Your task to perform on an android device: toggle wifi Image 0: 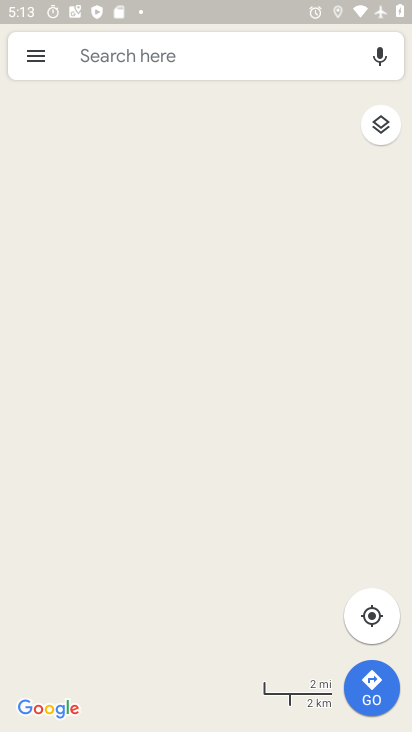
Step 0: press back button
Your task to perform on an android device: toggle wifi Image 1: 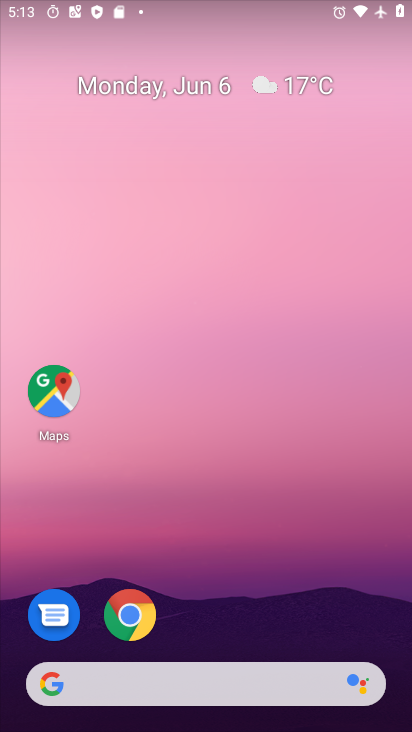
Step 1: drag from (232, 595) to (207, 1)
Your task to perform on an android device: toggle wifi Image 2: 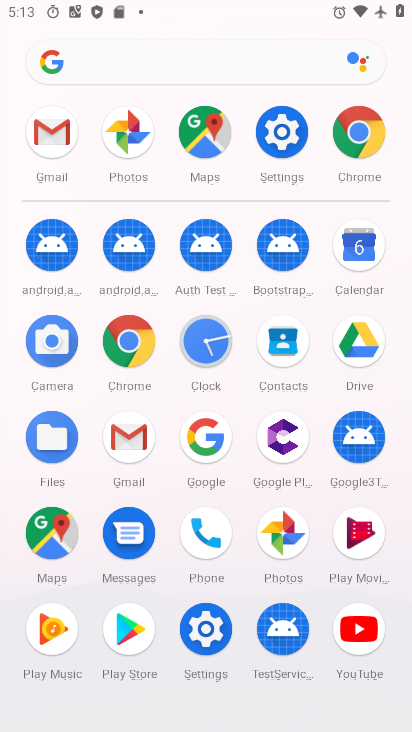
Step 2: click (281, 129)
Your task to perform on an android device: toggle wifi Image 3: 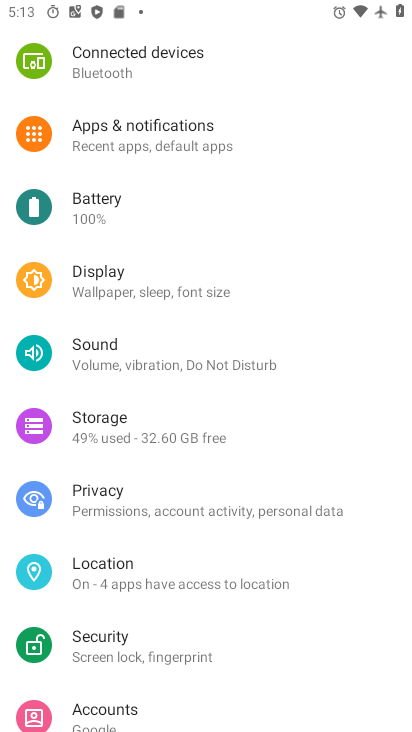
Step 3: drag from (225, 114) to (225, 501)
Your task to perform on an android device: toggle wifi Image 4: 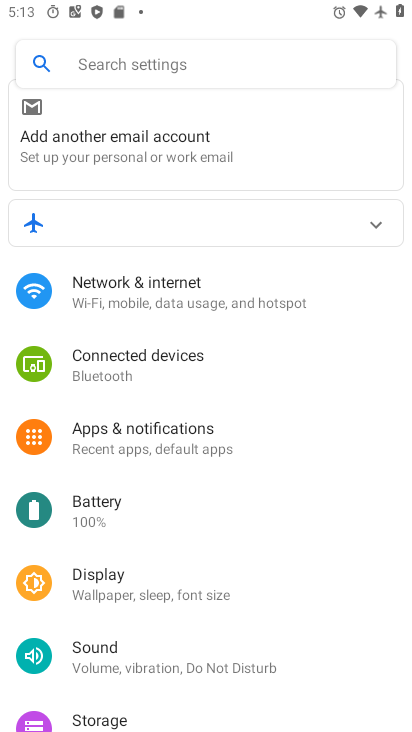
Step 4: click (190, 291)
Your task to perform on an android device: toggle wifi Image 5: 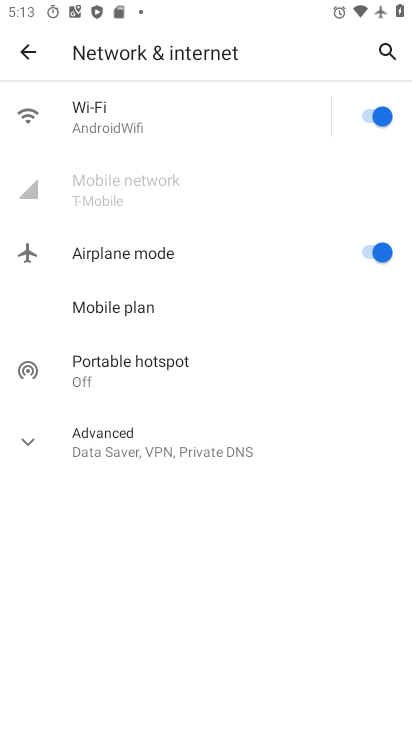
Step 5: click (363, 121)
Your task to perform on an android device: toggle wifi Image 6: 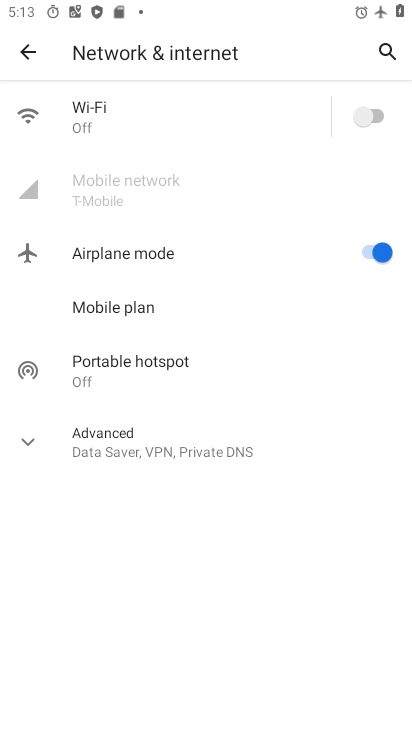
Step 6: click (45, 442)
Your task to perform on an android device: toggle wifi Image 7: 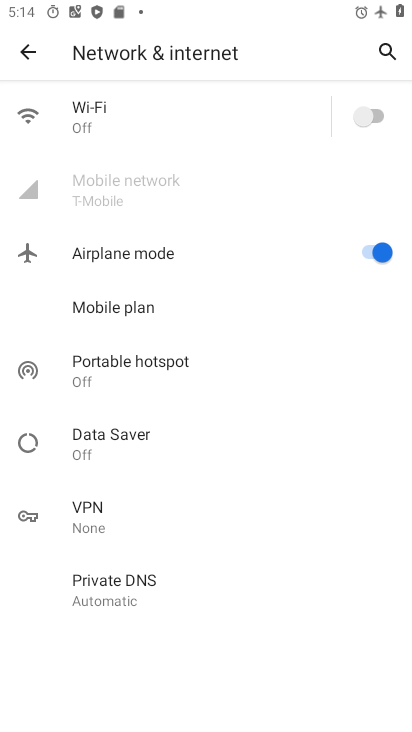
Step 7: task complete